Your task to perform on an android device: turn off location Image 0: 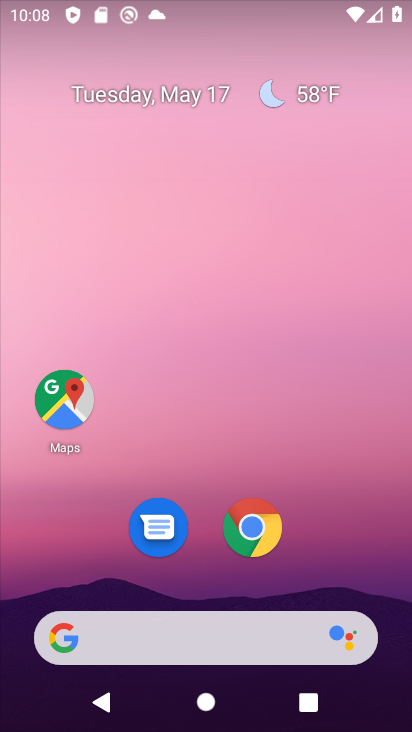
Step 0: drag from (380, 564) to (391, 7)
Your task to perform on an android device: turn off location Image 1: 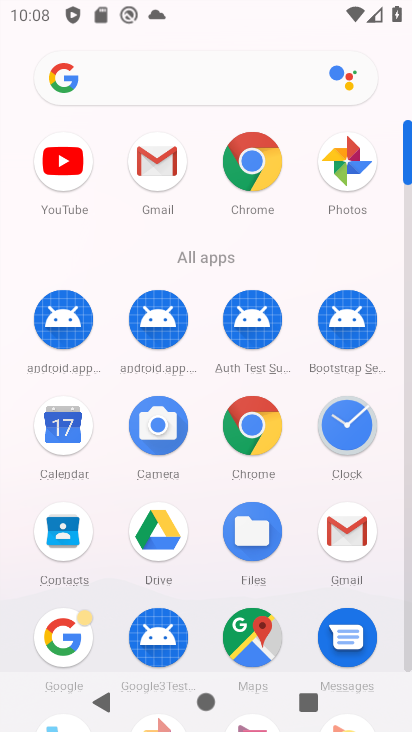
Step 1: drag from (408, 522) to (410, 487)
Your task to perform on an android device: turn off location Image 2: 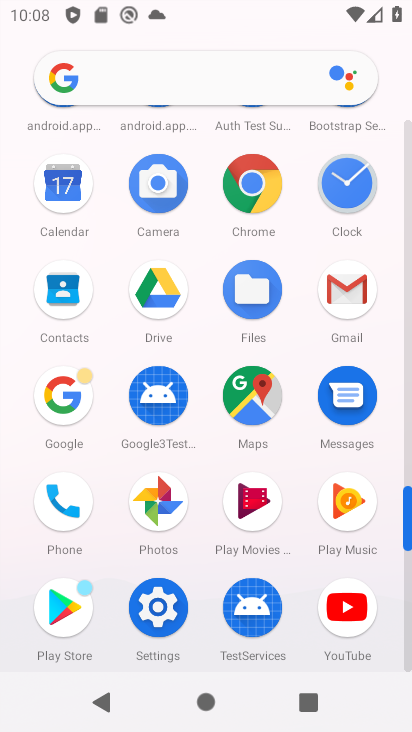
Step 2: click (162, 610)
Your task to perform on an android device: turn off location Image 3: 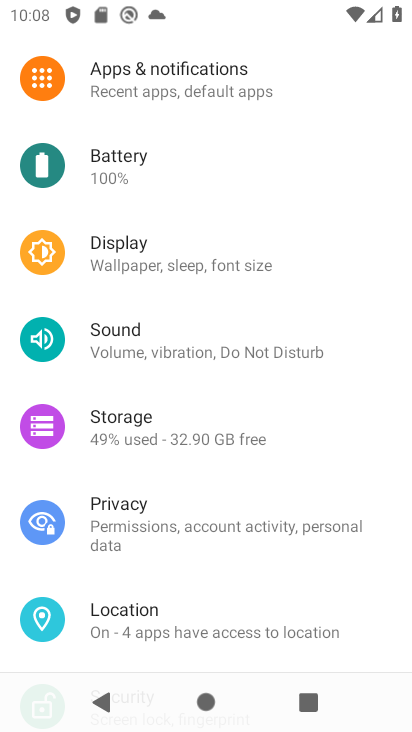
Step 3: click (138, 608)
Your task to perform on an android device: turn off location Image 4: 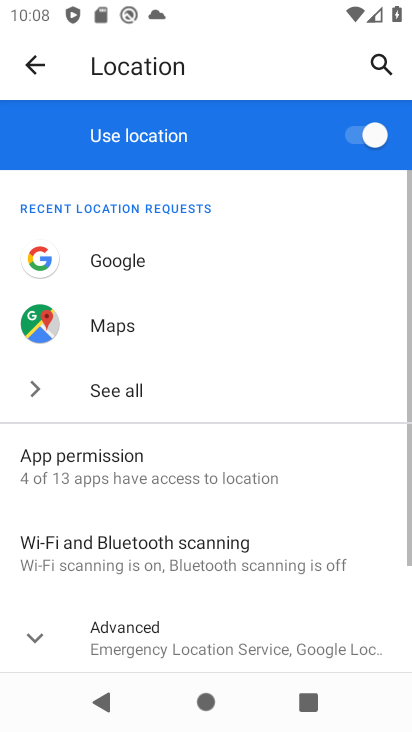
Step 4: click (367, 137)
Your task to perform on an android device: turn off location Image 5: 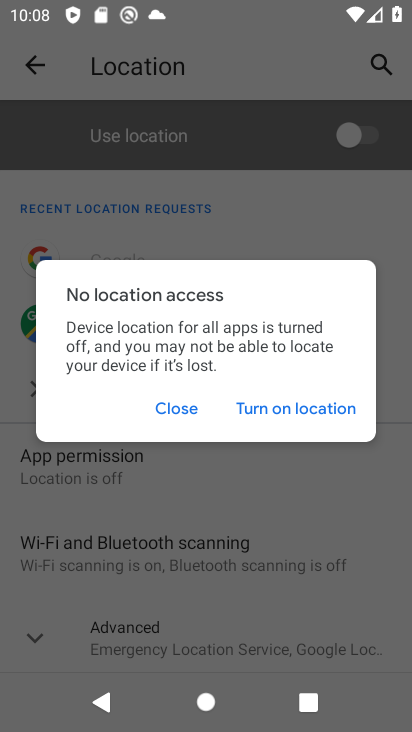
Step 5: click (204, 413)
Your task to perform on an android device: turn off location Image 6: 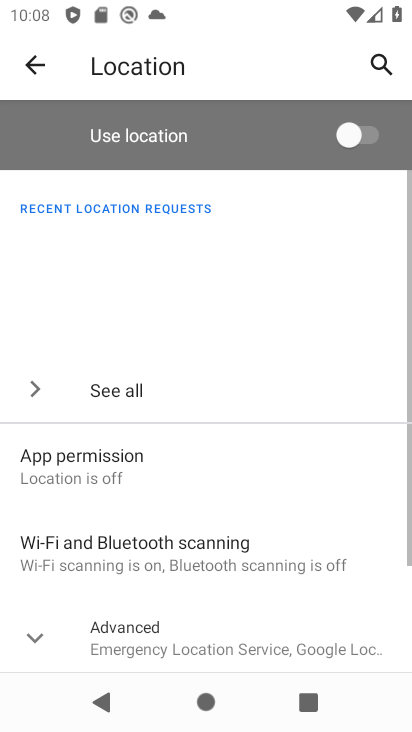
Step 6: click (182, 410)
Your task to perform on an android device: turn off location Image 7: 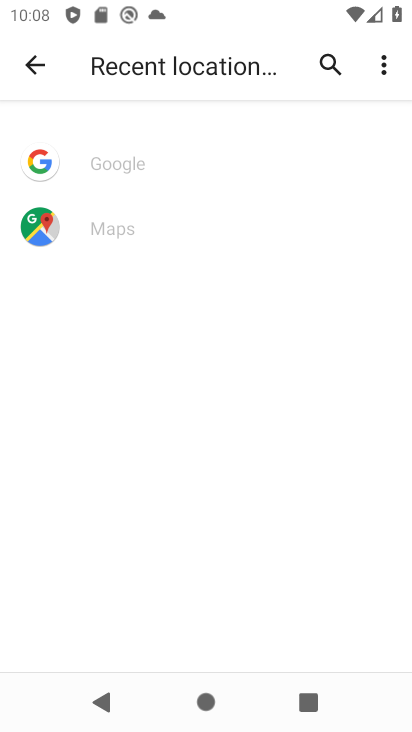
Step 7: press home button
Your task to perform on an android device: turn off location Image 8: 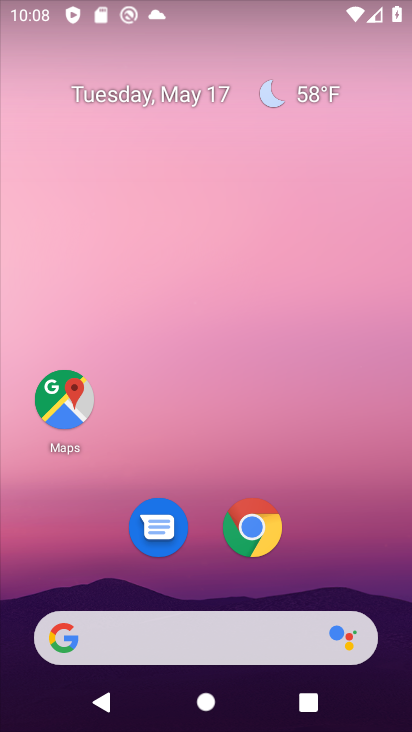
Step 8: drag from (354, 582) to (370, 3)
Your task to perform on an android device: turn off location Image 9: 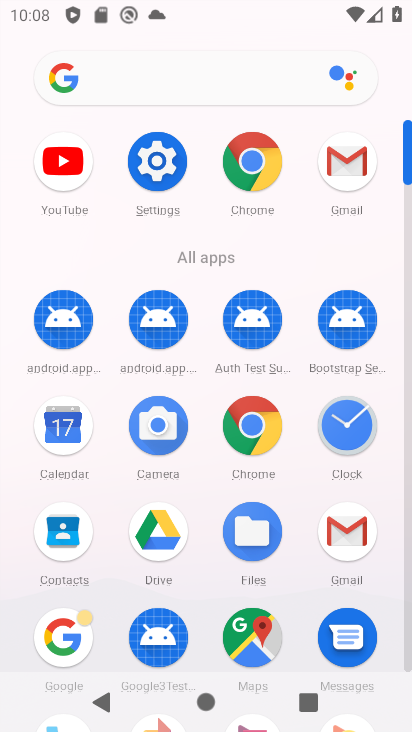
Step 9: click (152, 166)
Your task to perform on an android device: turn off location Image 10: 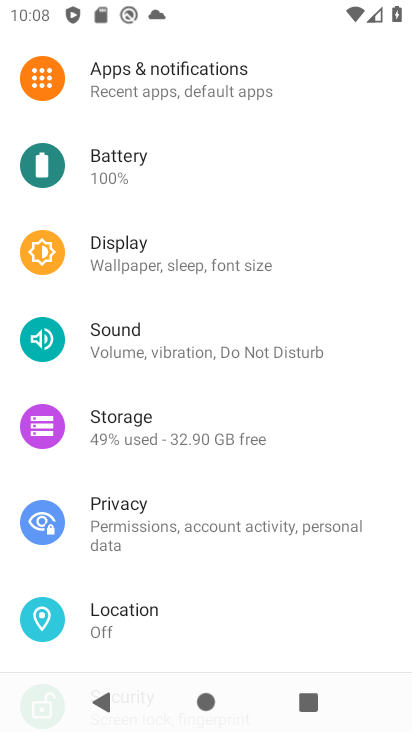
Step 10: click (144, 612)
Your task to perform on an android device: turn off location Image 11: 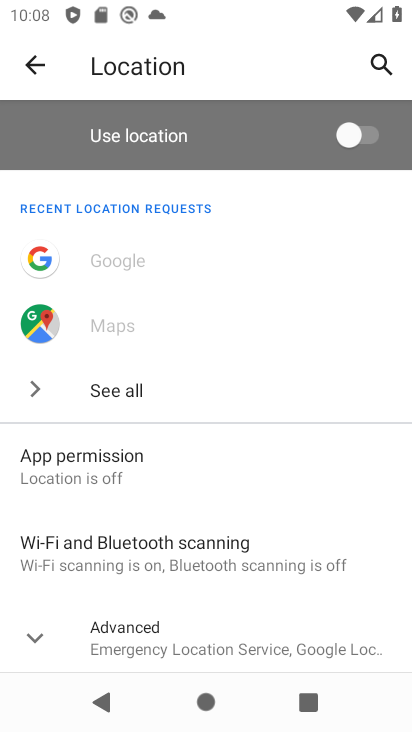
Step 11: task complete